Your task to perform on an android device: empty trash in google photos Image 0: 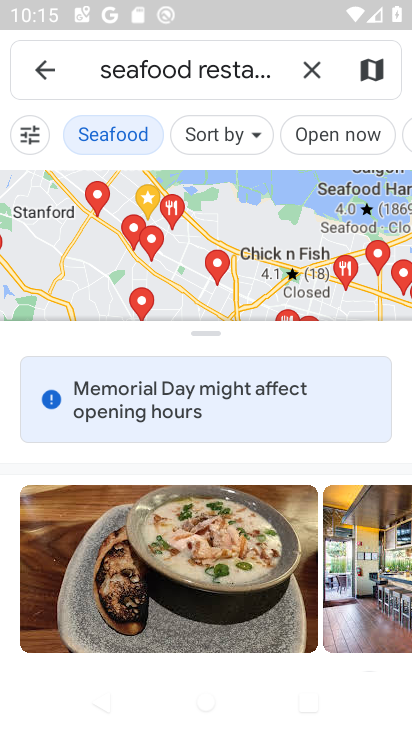
Step 0: press home button
Your task to perform on an android device: empty trash in google photos Image 1: 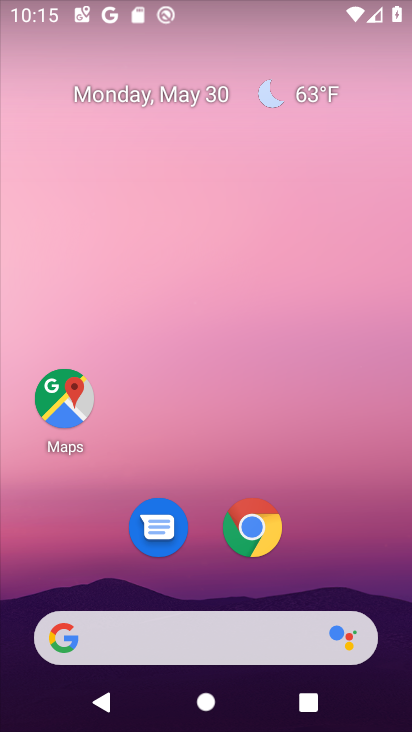
Step 1: drag from (325, 635) to (358, 184)
Your task to perform on an android device: empty trash in google photos Image 2: 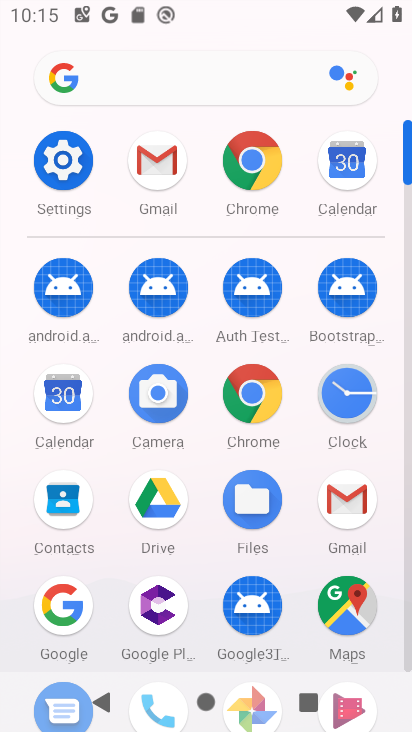
Step 2: drag from (206, 617) to (253, 367)
Your task to perform on an android device: empty trash in google photos Image 3: 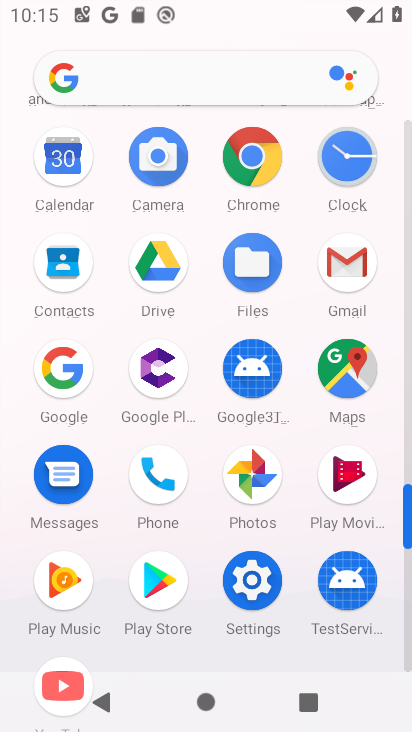
Step 3: click (254, 478)
Your task to perform on an android device: empty trash in google photos Image 4: 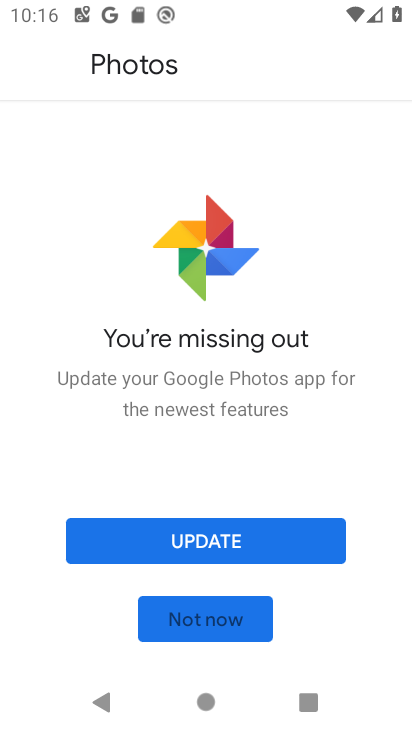
Step 4: click (242, 607)
Your task to perform on an android device: empty trash in google photos Image 5: 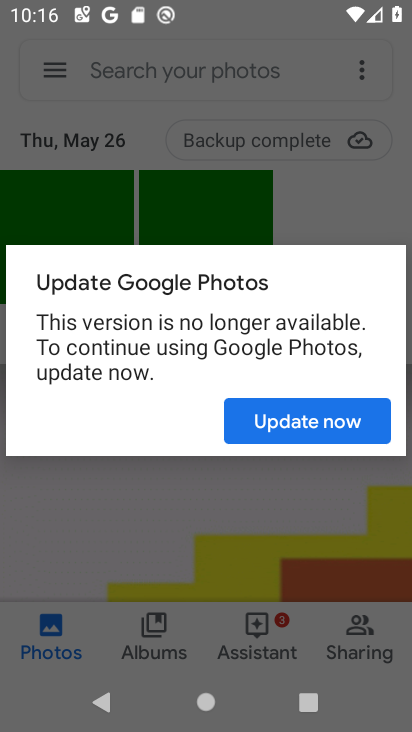
Step 5: click (309, 393)
Your task to perform on an android device: empty trash in google photos Image 6: 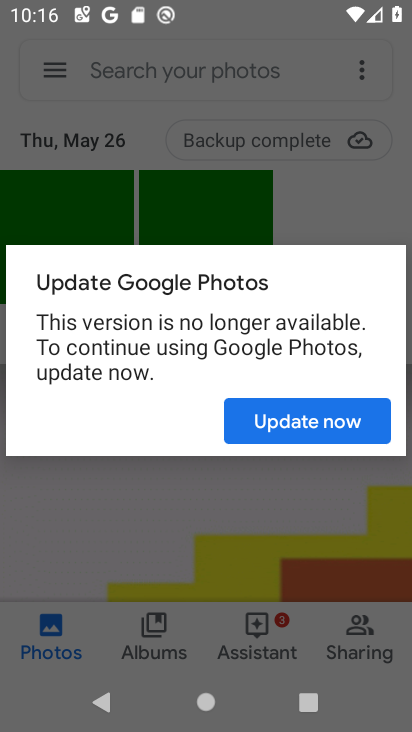
Step 6: click (318, 413)
Your task to perform on an android device: empty trash in google photos Image 7: 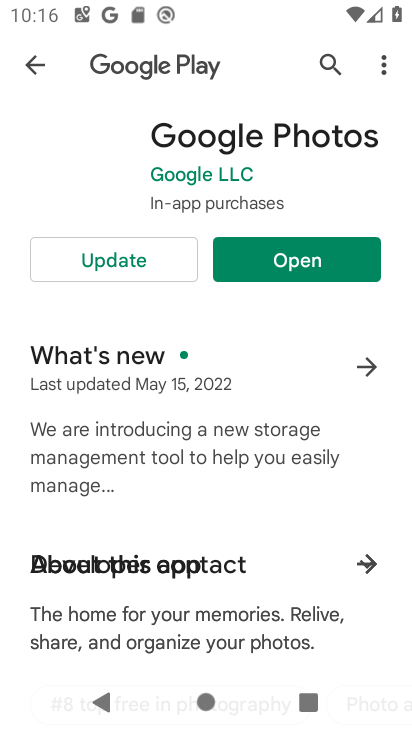
Step 7: press back button
Your task to perform on an android device: empty trash in google photos Image 8: 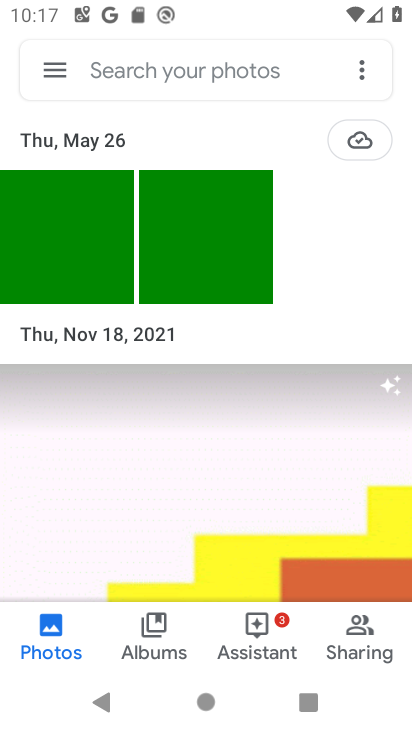
Step 8: click (54, 72)
Your task to perform on an android device: empty trash in google photos Image 9: 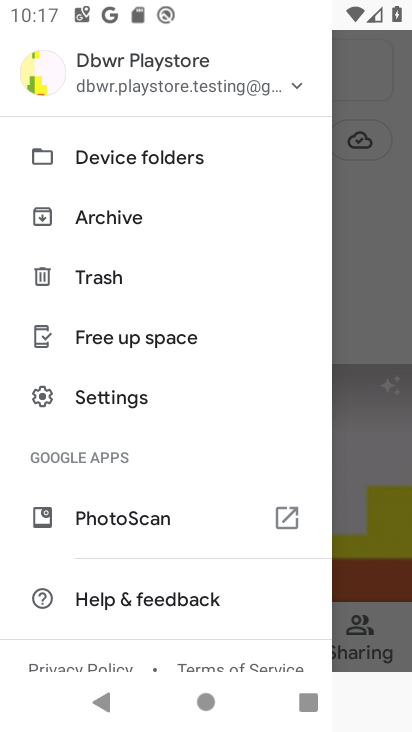
Step 9: click (123, 279)
Your task to perform on an android device: empty trash in google photos Image 10: 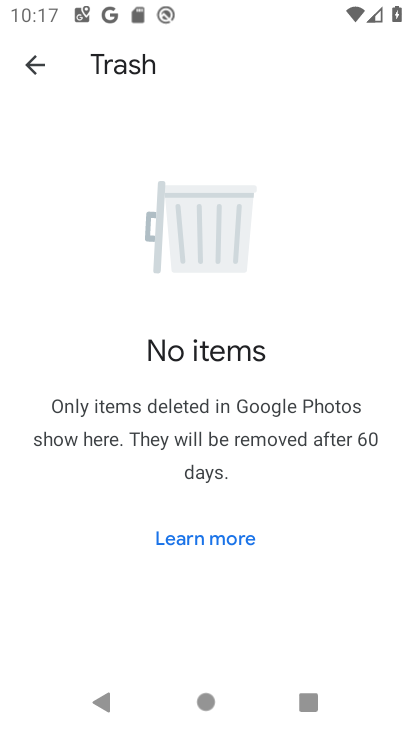
Step 10: task complete